Your task to perform on an android device: Do I have any events tomorrow? Image 0: 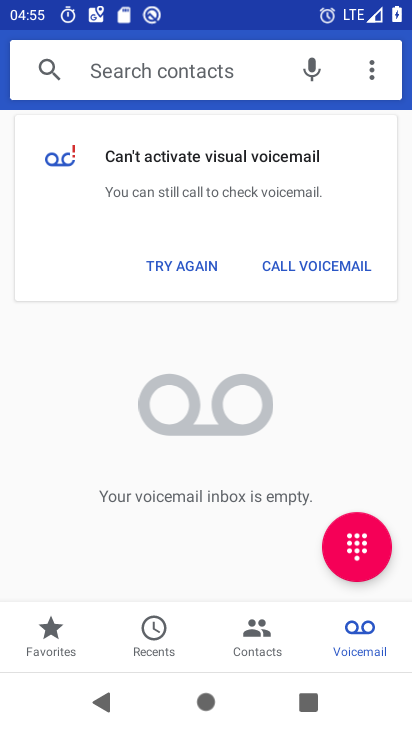
Step 0: press back button
Your task to perform on an android device: Do I have any events tomorrow? Image 1: 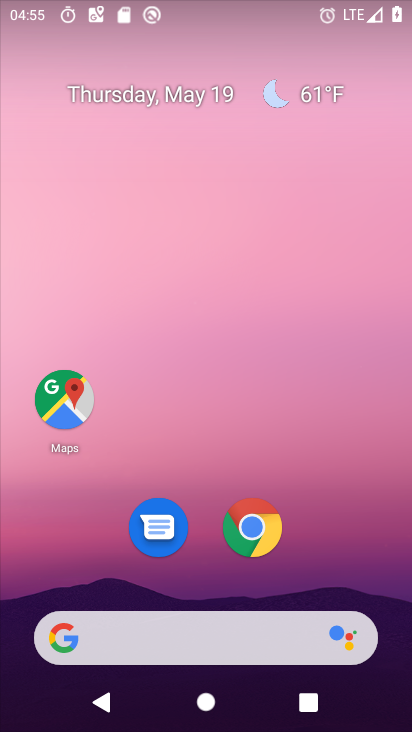
Step 1: drag from (189, 592) to (283, 127)
Your task to perform on an android device: Do I have any events tomorrow? Image 2: 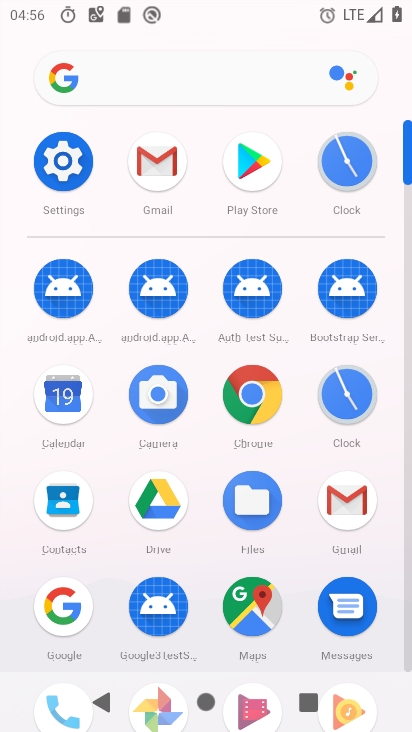
Step 2: click (61, 394)
Your task to perform on an android device: Do I have any events tomorrow? Image 3: 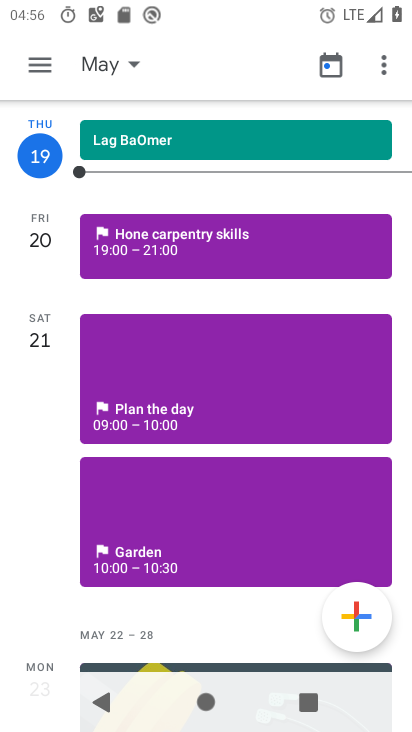
Step 3: click (172, 243)
Your task to perform on an android device: Do I have any events tomorrow? Image 4: 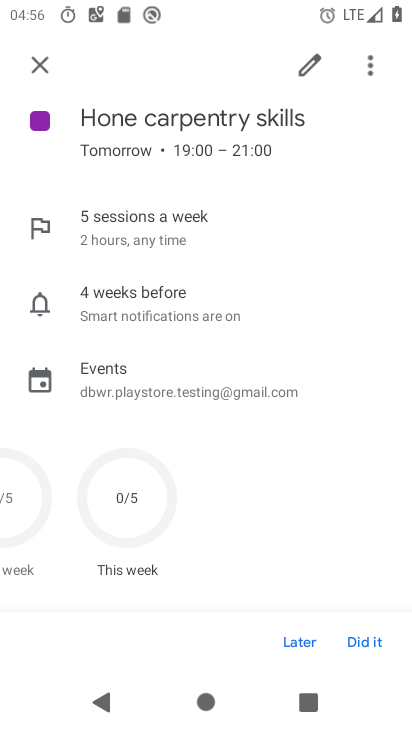
Step 4: task complete